Your task to perform on an android device: Open maps Image 0: 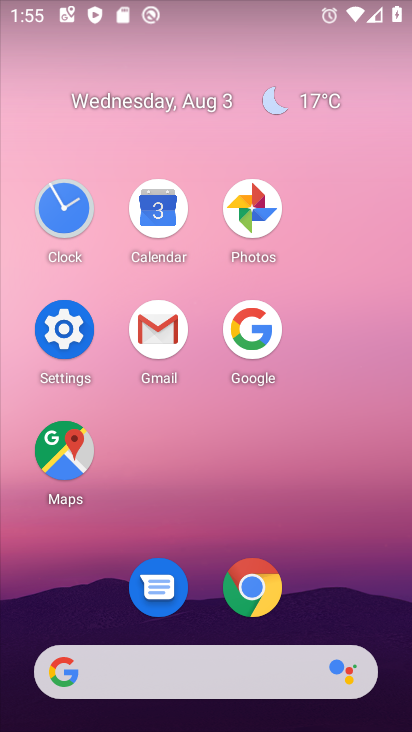
Step 0: click (73, 453)
Your task to perform on an android device: Open maps Image 1: 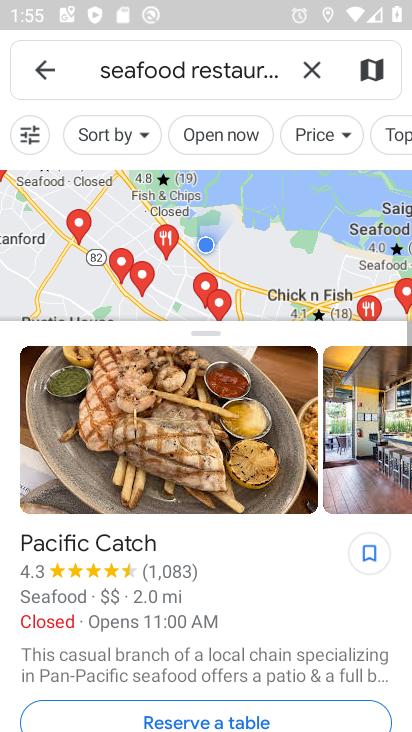
Step 1: task complete